Your task to perform on an android device: allow cookies in the chrome app Image 0: 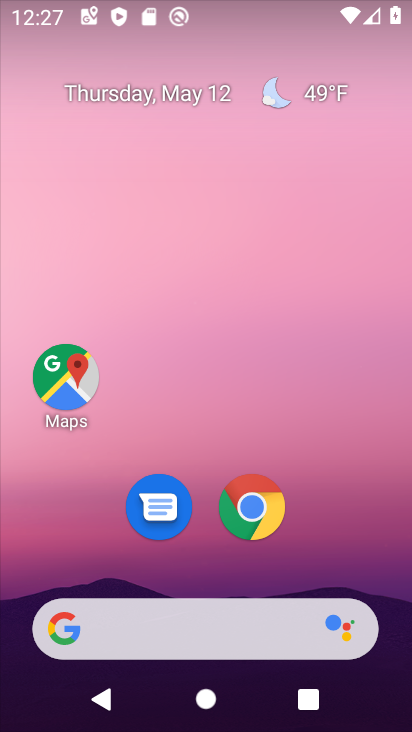
Step 0: click (246, 510)
Your task to perform on an android device: allow cookies in the chrome app Image 1: 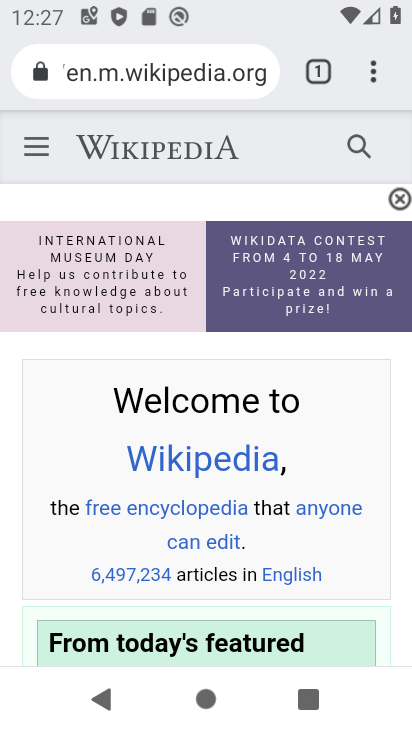
Step 1: click (369, 81)
Your task to perform on an android device: allow cookies in the chrome app Image 2: 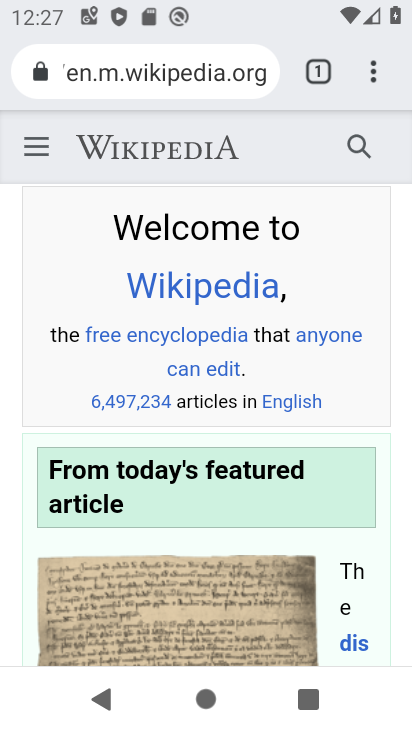
Step 2: click (374, 71)
Your task to perform on an android device: allow cookies in the chrome app Image 3: 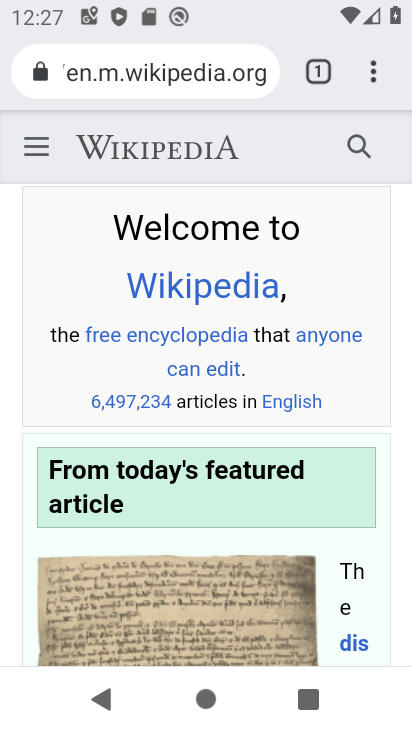
Step 3: click (374, 71)
Your task to perform on an android device: allow cookies in the chrome app Image 4: 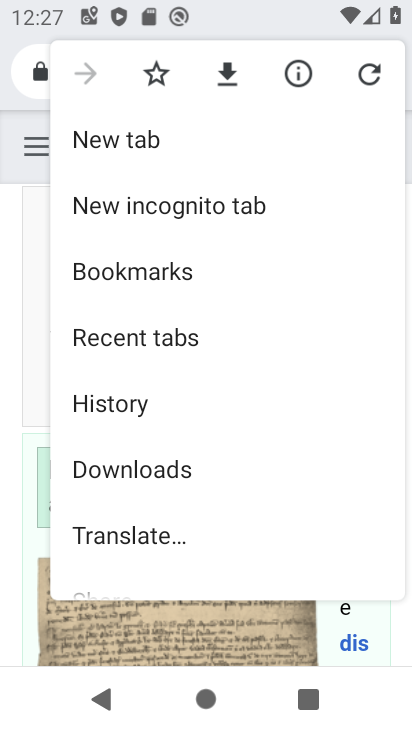
Step 4: drag from (216, 540) to (214, 261)
Your task to perform on an android device: allow cookies in the chrome app Image 5: 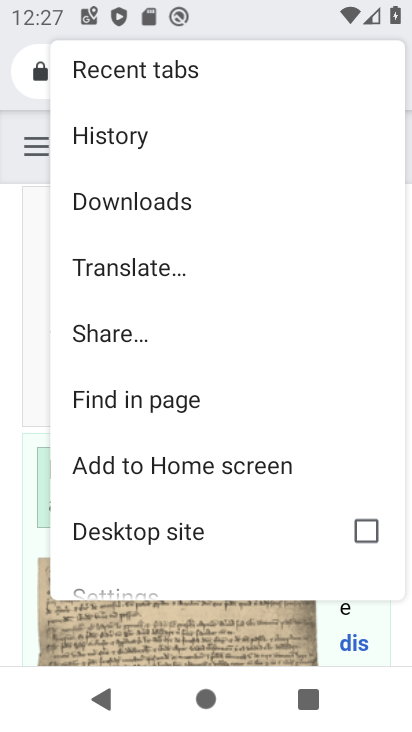
Step 5: drag from (243, 558) to (238, 351)
Your task to perform on an android device: allow cookies in the chrome app Image 6: 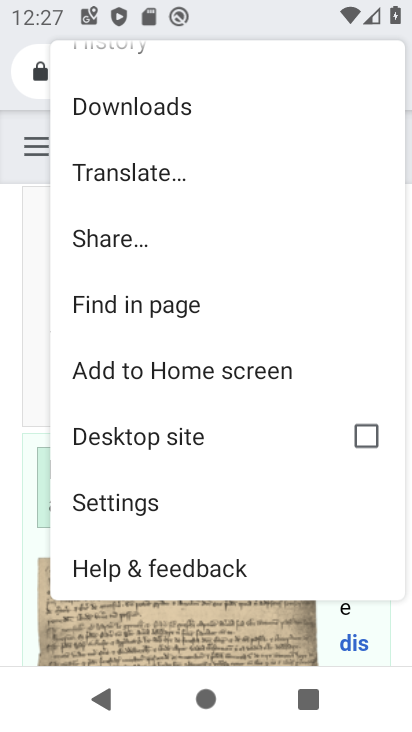
Step 6: click (178, 501)
Your task to perform on an android device: allow cookies in the chrome app Image 7: 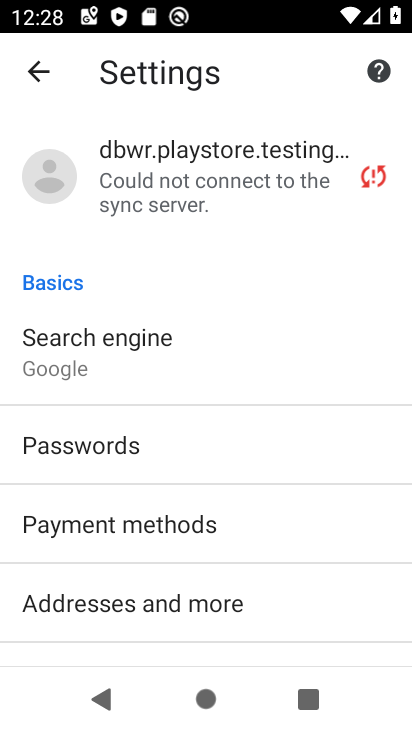
Step 7: drag from (190, 578) to (231, 291)
Your task to perform on an android device: allow cookies in the chrome app Image 8: 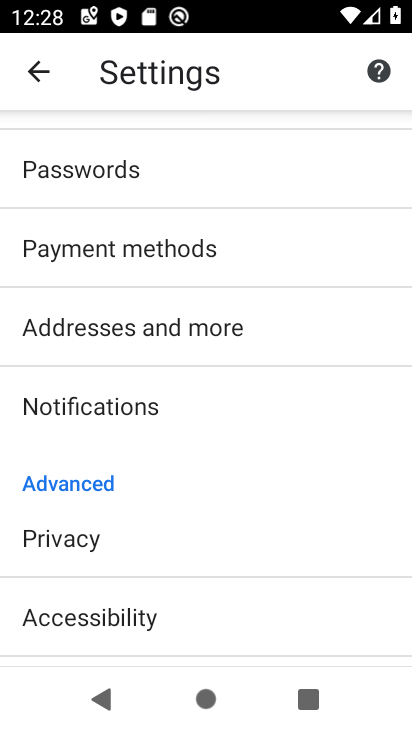
Step 8: drag from (232, 638) to (222, 426)
Your task to perform on an android device: allow cookies in the chrome app Image 9: 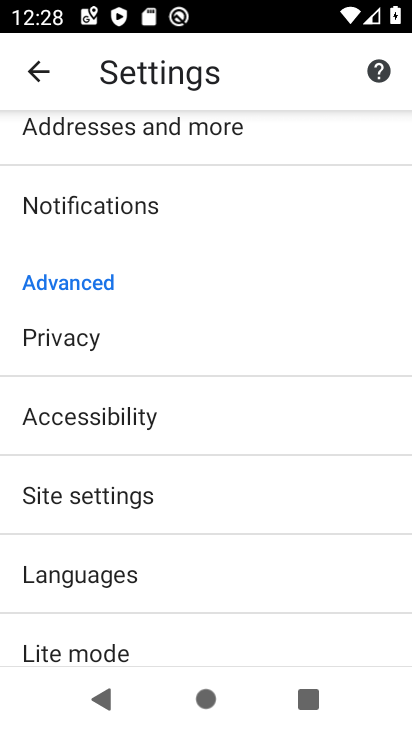
Step 9: click (179, 508)
Your task to perform on an android device: allow cookies in the chrome app Image 10: 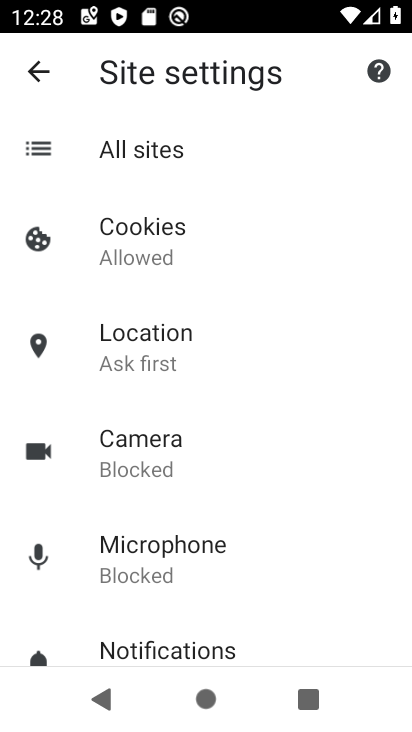
Step 10: click (218, 247)
Your task to perform on an android device: allow cookies in the chrome app Image 11: 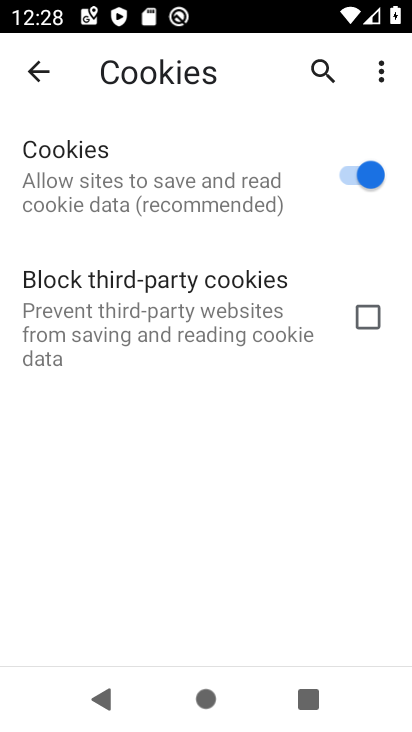
Step 11: task complete